Your task to perform on an android device: Search for Italian restaurants on Maps Image 0: 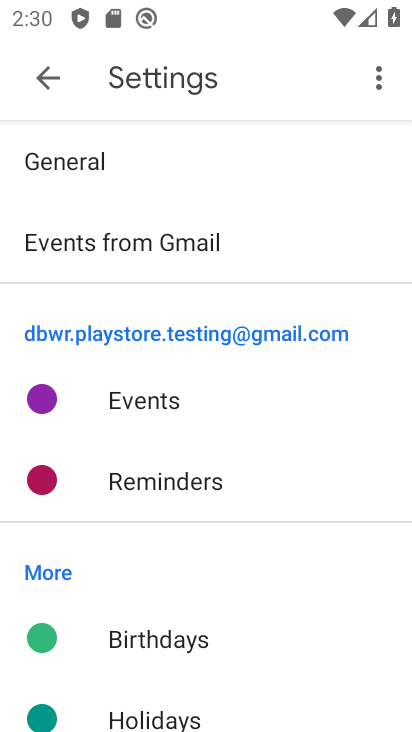
Step 0: press home button
Your task to perform on an android device: Search for Italian restaurants on Maps Image 1: 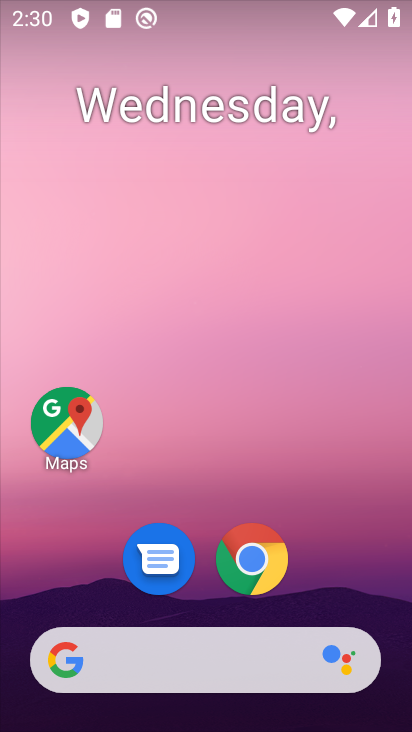
Step 1: click (72, 438)
Your task to perform on an android device: Search for Italian restaurants on Maps Image 2: 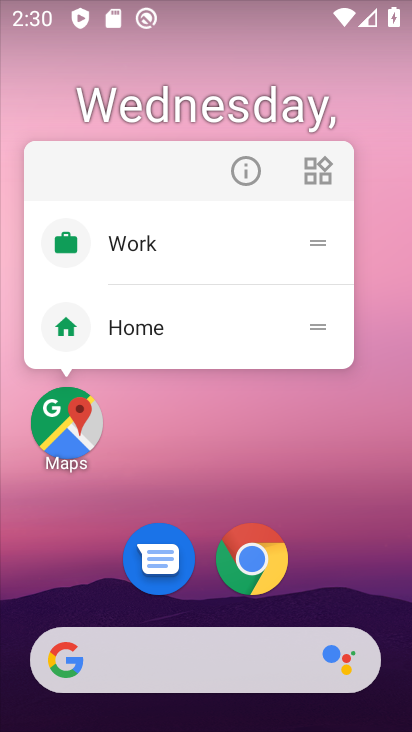
Step 2: click (50, 437)
Your task to perform on an android device: Search for Italian restaurants on Maps Image 3: 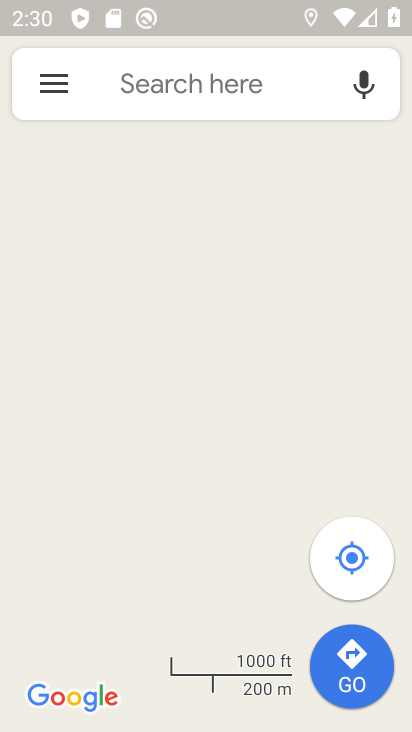
Step 3: click (199, 74)
Your task to perform on an android device: Search for Italian restaurants on Maps Image 4: 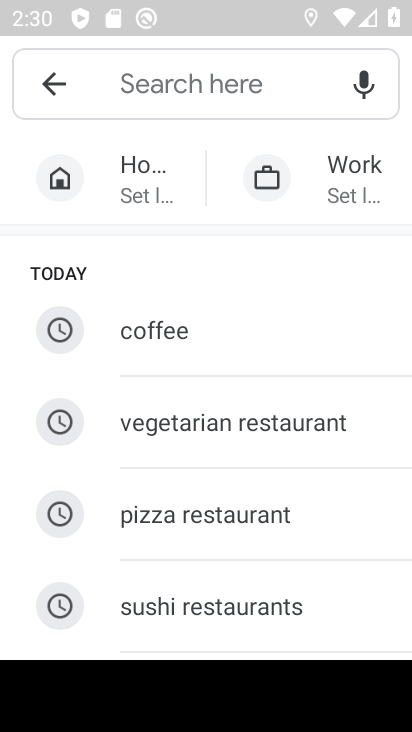
Step 4: type "italian restaurants"
Your task to perform on an android device: Search for Italian restaurants on Maps Image 5: 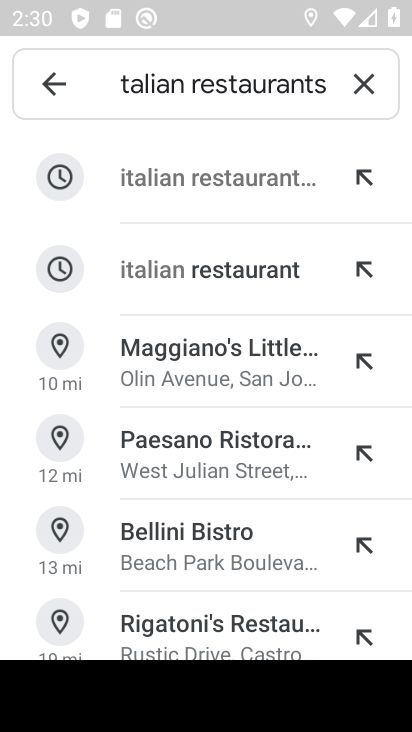
Step 5: click (290, 161)
Your task to perform on an android device: Search for Italian restaurants on Maps Image 6: 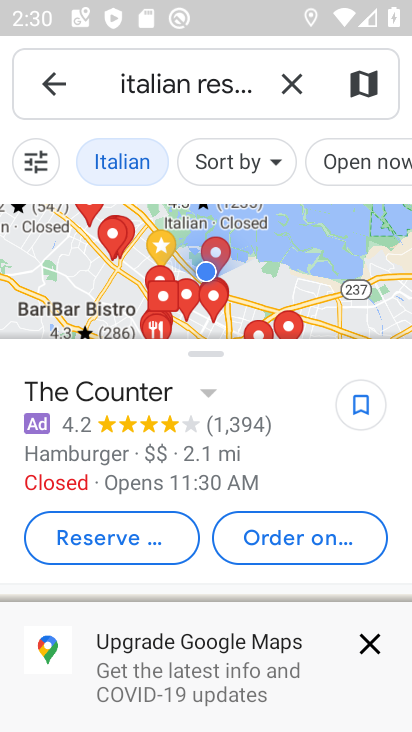
Step 6: task complete